Your task to perform on an android device: Go to CNN.com Image 0: 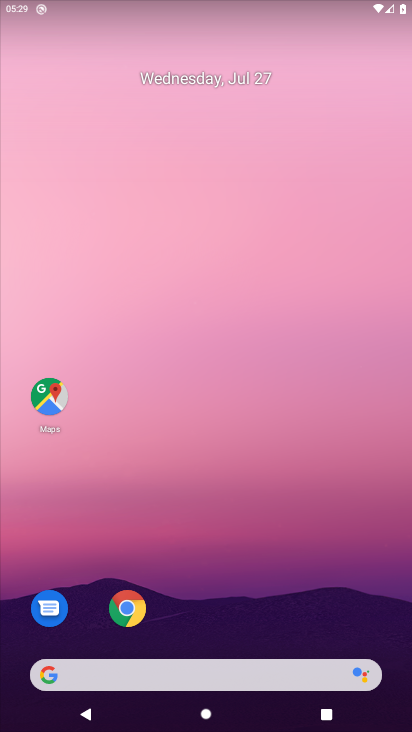
Step 0: press home button
Your task to perform on an android device: Go to CNN.com Image 1: 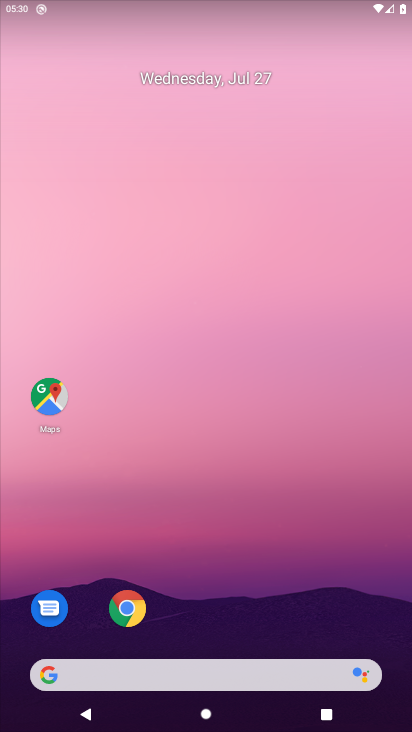
Step 1: click (53, 673)
Your task to perform on an android device: Go to CNN.com Image 2: 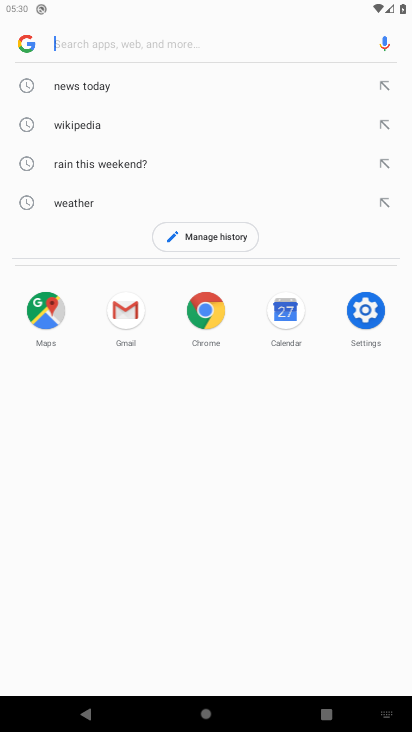
Step 2: press enter
Your task to perform on an android device: Go to CNN.com Image 3: 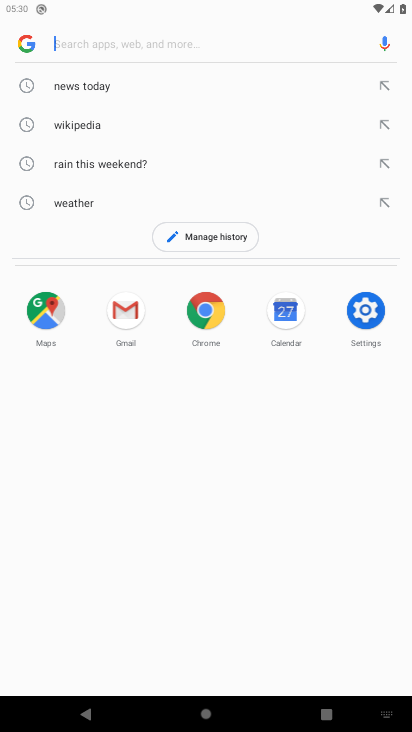
Step 3: type "CNN.com"
Your task to perform on an android device: Go to CNN.com Image 4: 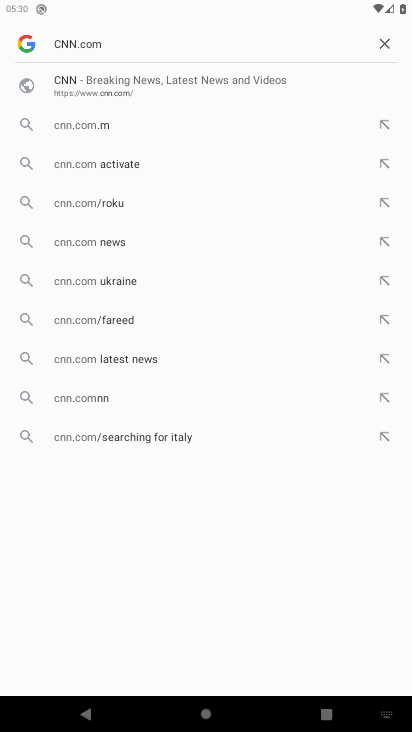
Step 4: press enter
Your task to perform on an android device: Go to CNN.com Image 5: 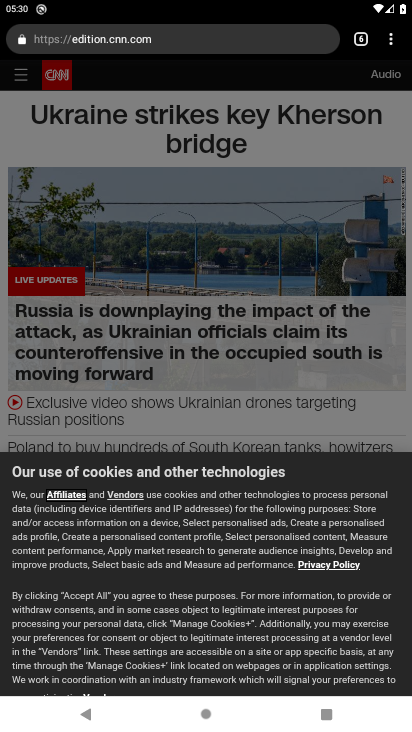
Step 5: task complete